Your task to perform on an android device: turn on airplane mode Image 0: 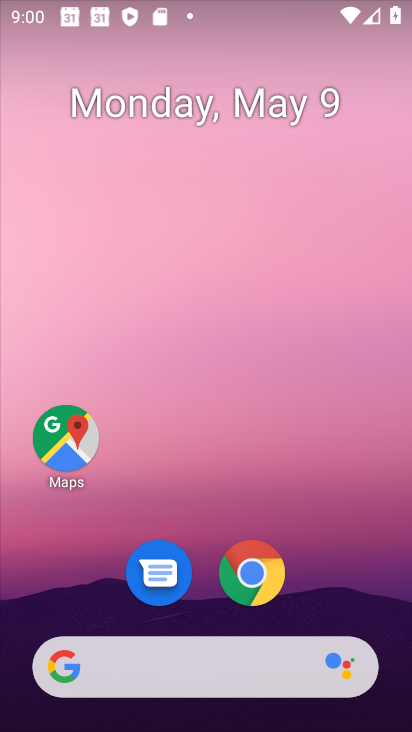
Step 0: drag from (315, 611) to (331, 48)
Your task to perform on an android device: turn on airplane mode Image 1: 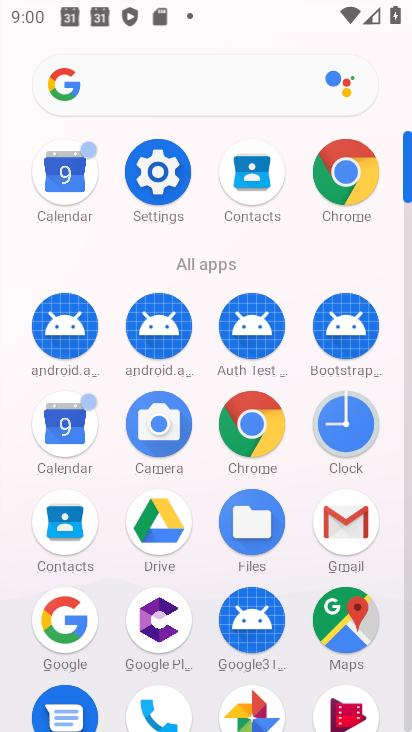
Step 1: click (140, 172)
Your task to perform on an android device: turn on airplane mode Image 2: 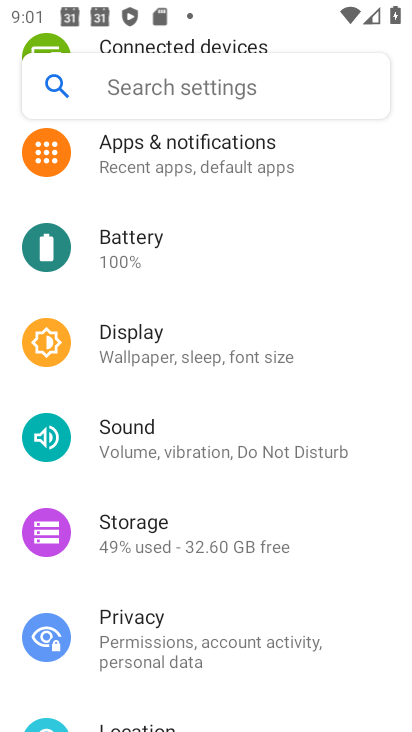
Step 2: drag from (225, 224) to (248, 305)
Your task to perform on an android device: turn on airplane mode Image 3: 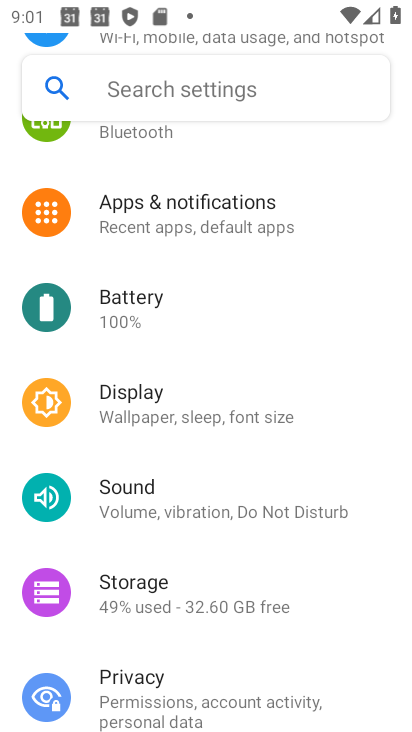
Step 3: drag from (224, 242) to (261, 400)
Your task to perform on an android device: turn on airplane mode Image 4: 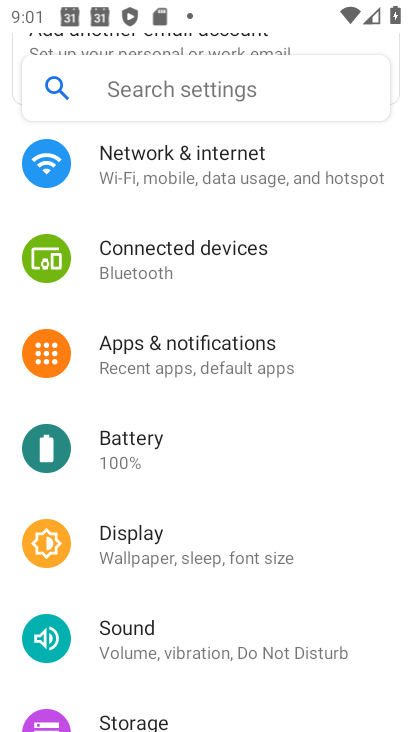
Step 4: click (181, 182)
Your task to perform on an android device: turn on airplane mode Image 5: 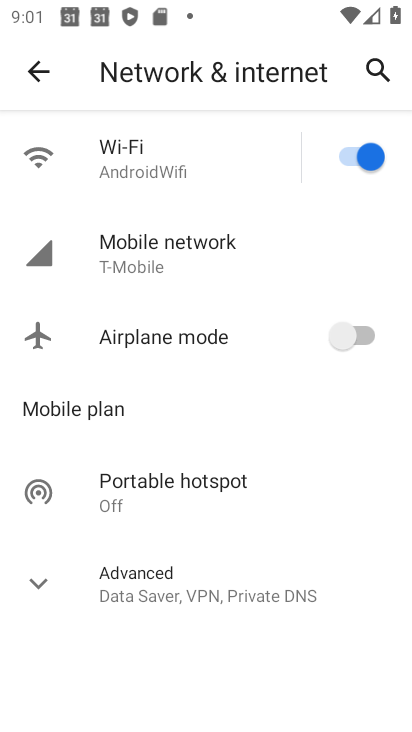
Step 5: click (353, 340)
Your task to perform on an android device: turn on airplane mode Image 6: 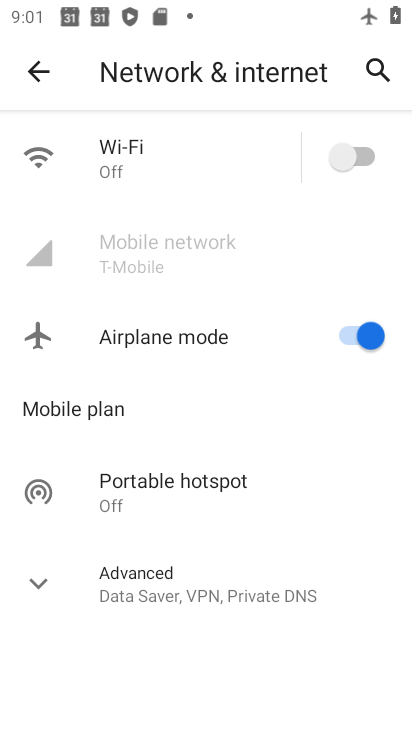
Step 6: task complete